Your task to perform on an android device: open device folders in google photos Image 0: 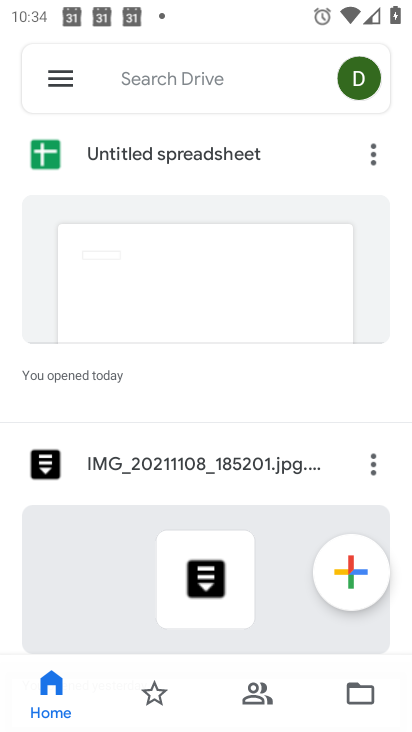
Step 0: press home button
Your task to perform on an android device: open device folders in google photos Image 1: 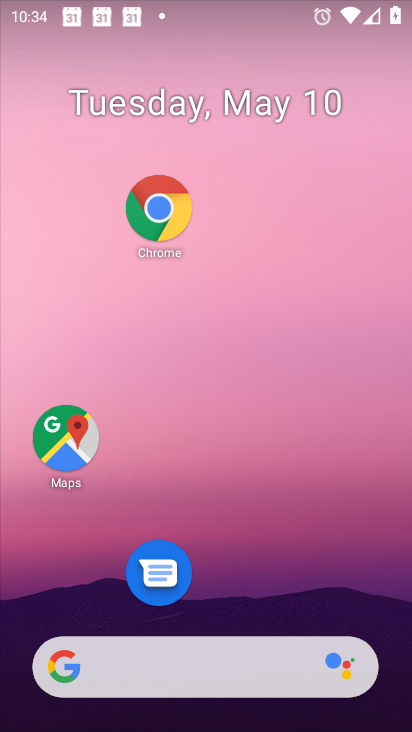
Step 1: drag from (228, 636) to (232, 231)
Your task to perform on an android device: open device folders in google photos Image 2: 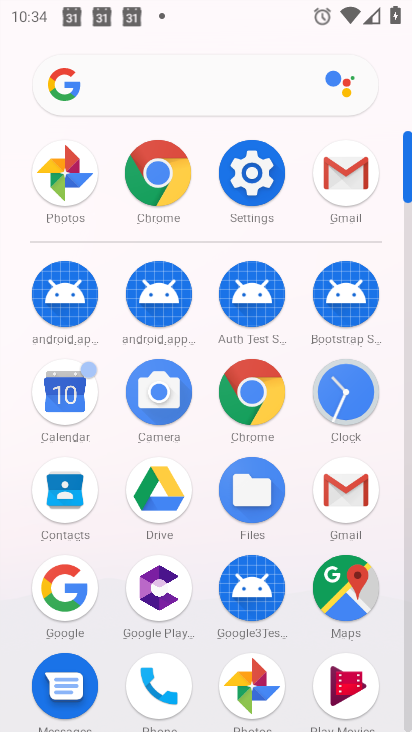
Step 2: click (262, 665)
Your task to perform on an android device: open device folders in google photos Image 3: 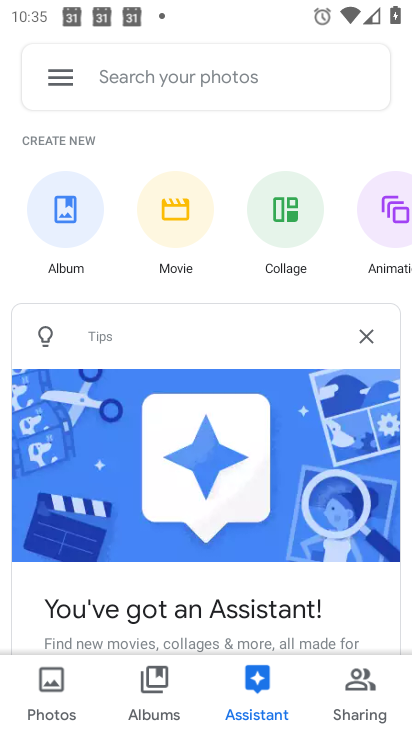
Step 3: task complete